Your task to perform on an android device: Go to eBay Image 0: 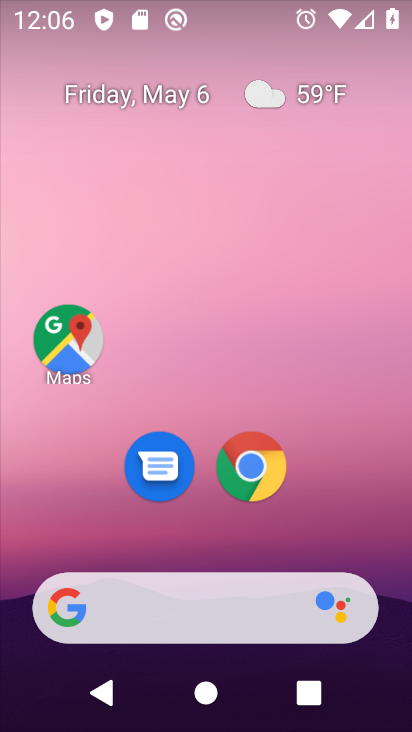
Step 0: click (248, 455)
Your task to perform on an android device: Go to eBay Image 1: 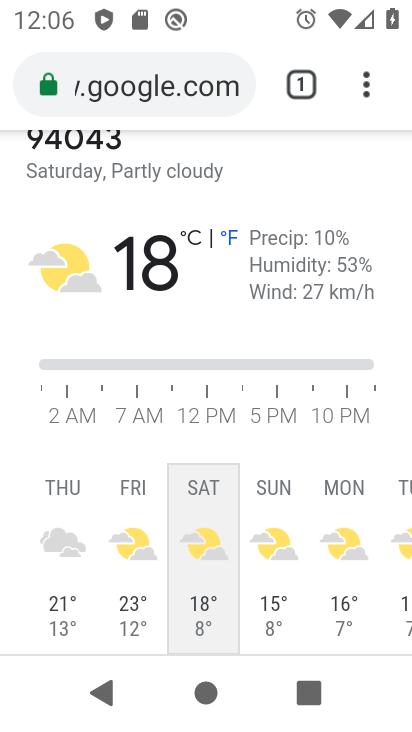
Step 1: click (162, 74)
Your task to perform on an android device: Go to eBay Image 2: 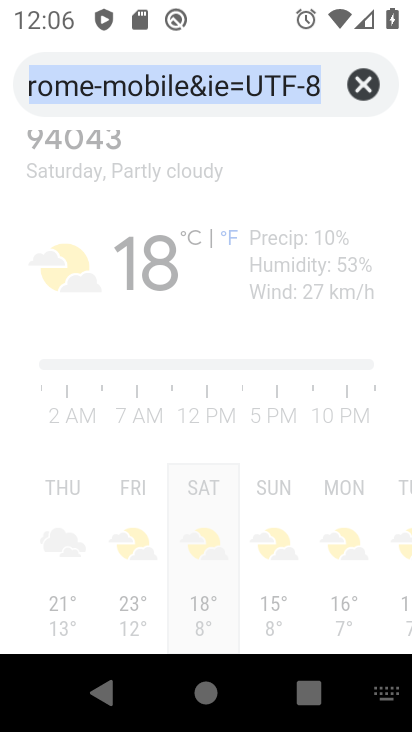
Step 2: type "eBay"
Your task to perform on an android device: Go to eBay Image 3: 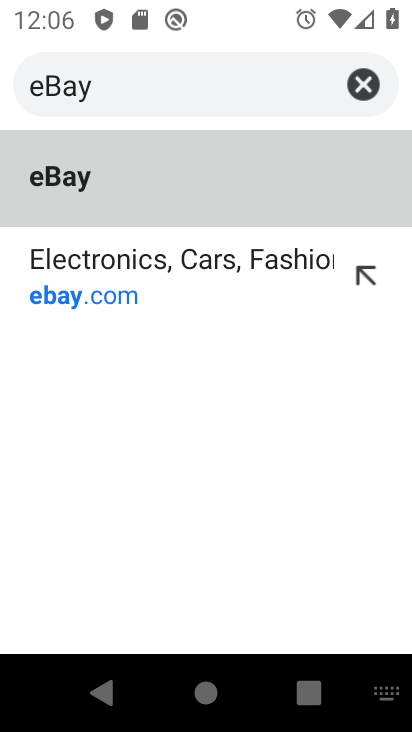
Step 3: click (120, 197)
Your task to perform on an android device: Go to eBay Image 4: 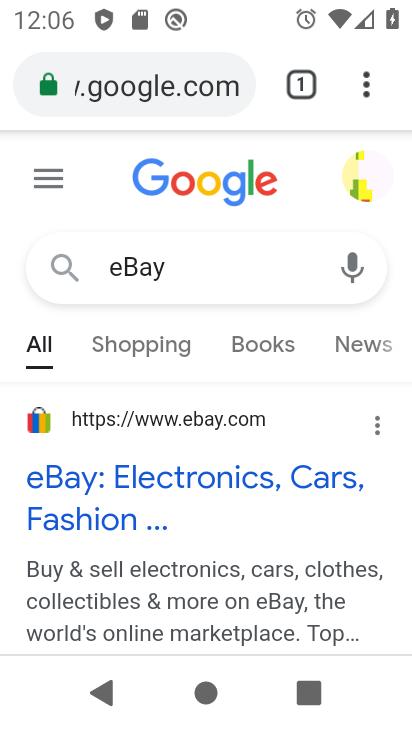
Step 4: task complete